Your task to perform on an android device: Open calendar and show me the second week of next month Image 0: 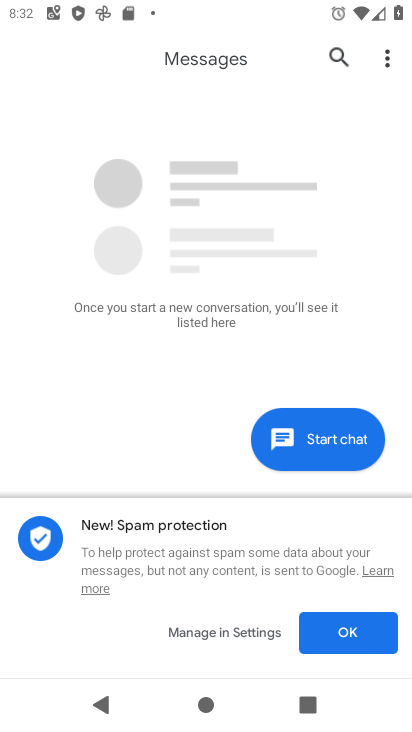
Step 0: press home button
Your task to perform on an android device: Open calendar and show me the second week of next month Image 1: 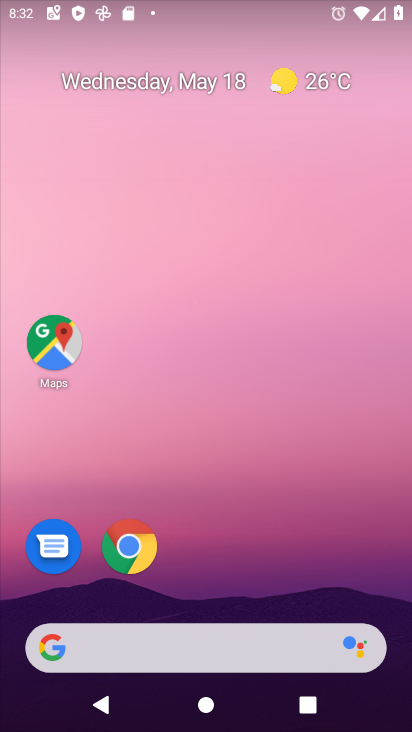
Step 1: drag from (401, 642) to (272, 145)
Your task to perform on an android device: Open calendar and show me the second week of next month Image 2: 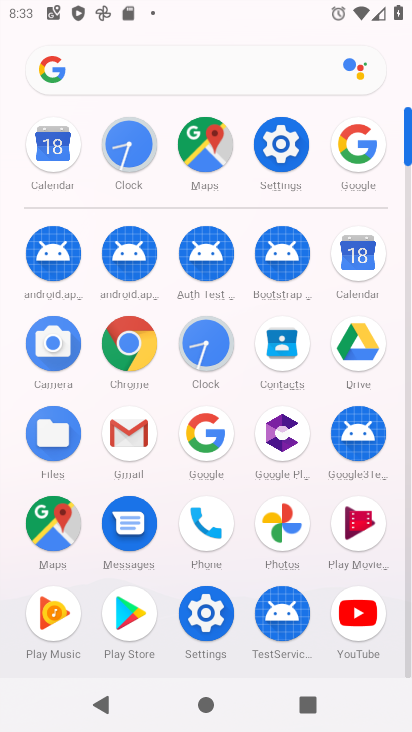
Step 2: click (344, 261)
Your task to perform on an android device: Open calendar and show me the second week of next month Image 3: 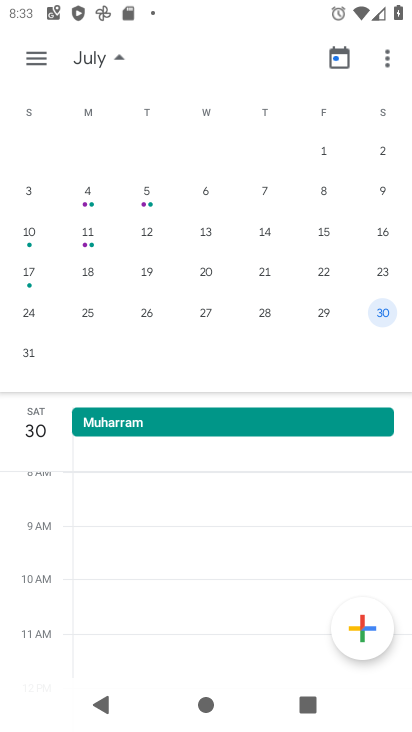
Step 3: drag from (355, 239) to (0, 264)
Your task to perform on an android device: Open calendar and show me the second week of next month Image 4: 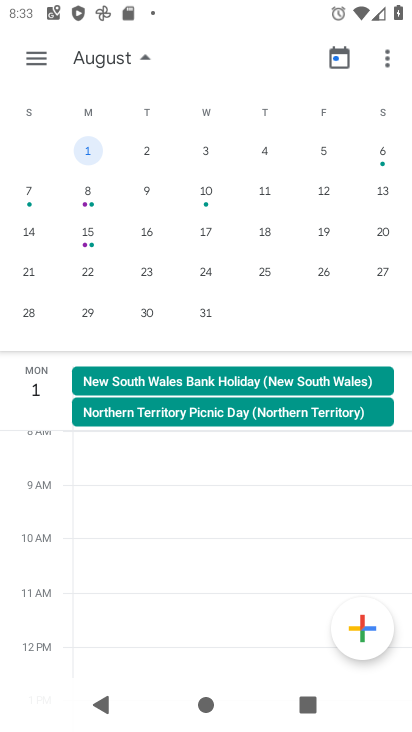
Step 4: click (86, 239)
Your task to perform on an android device: Open calendar and show me the second week of next month Image 5: 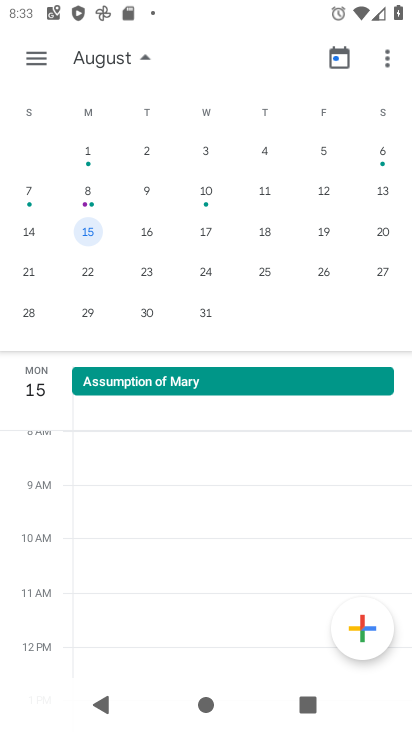
Step 5: task complete